Your task to perform on an android device: Go to accessibility settings Image 0: 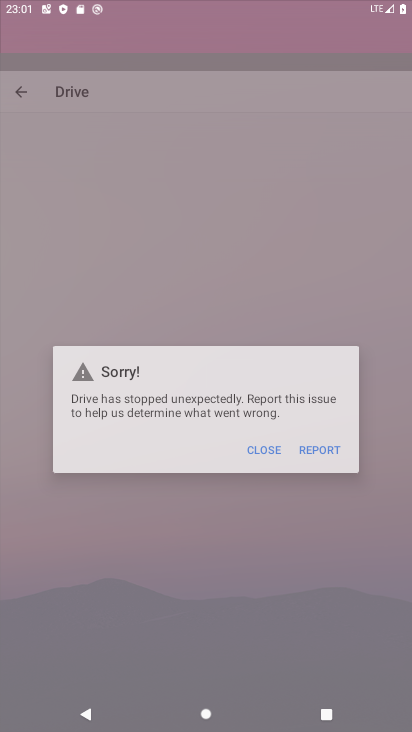
Step 0: click (225, 165)
Your task to perform on an android device: Go to accessibility settings Image 1: 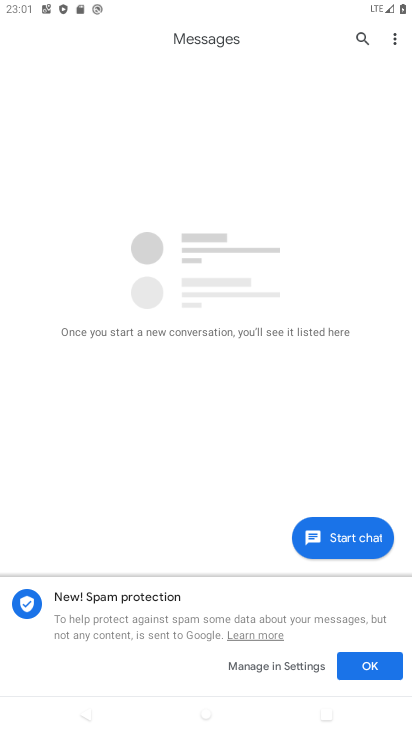
Step 1: press home button
Your task to perform on an android device: Go to accessibility settings Image 2: 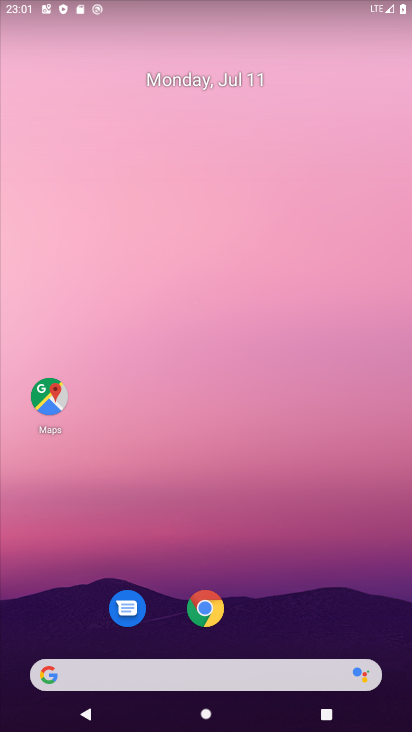
Step 2: click (48, 680)
Your task to perform on an android device: Go to accessibility settings Image 3: 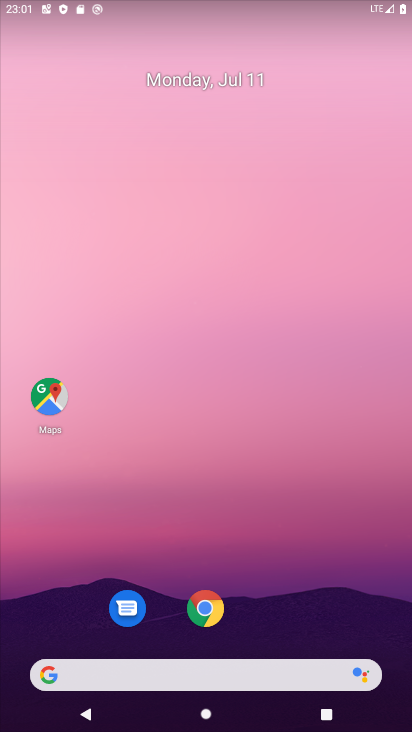
Step 3: drag from (52, 706) to (223, 309)
Your task to perform on an android device: Go to accessibility settings Image 4: 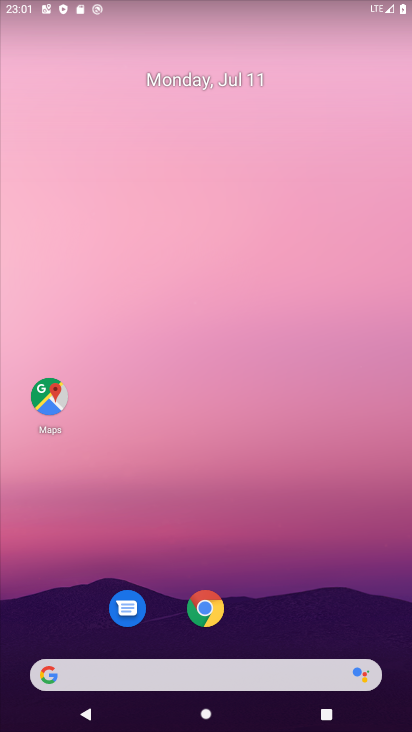
Step 4: drag from (64, 690) to (167, 264)
Your task to perform on an android device: Go to accessibility settings Image 5: 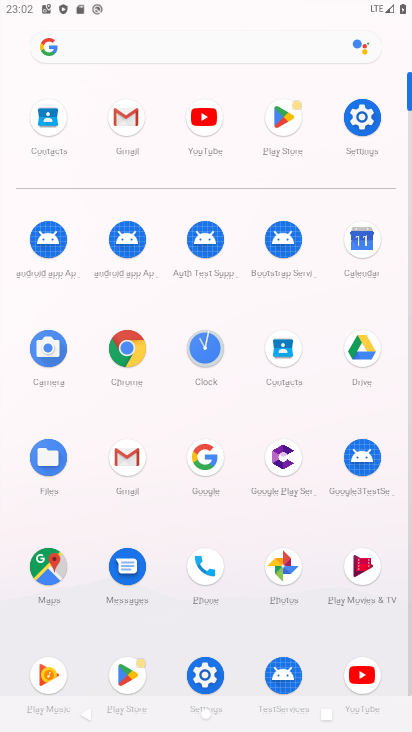
Step 5: click (198, 657)
Your task to perform on an android device: Go to accessibility settings Image 6: 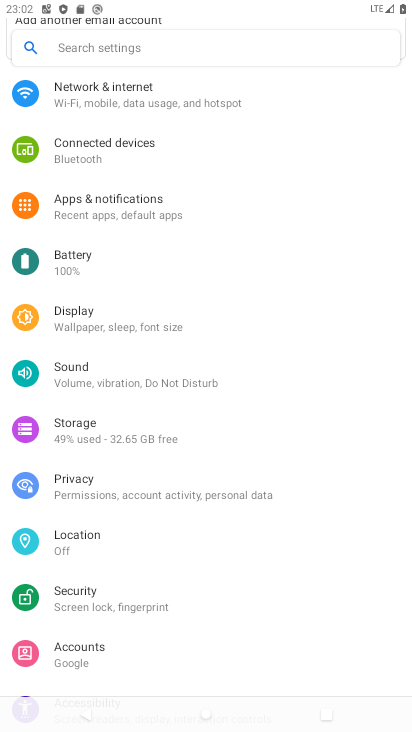
Step 6: click (82, 660)
Your task to perform on an android device: Go to accessibility settings Image 7: 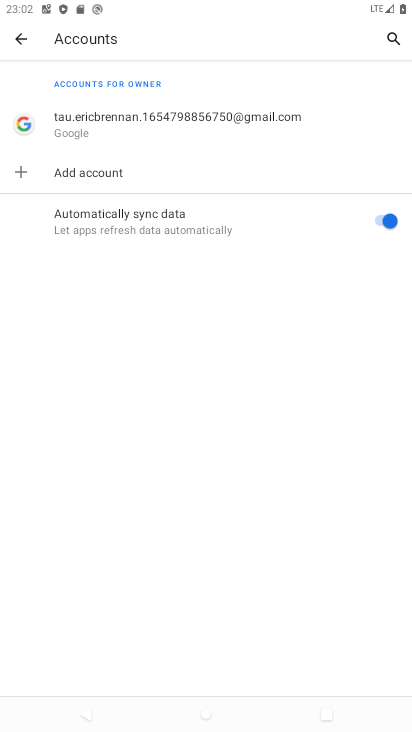
Step 7: click (17, 29)
Your task to perform on an android device: Go to accessibility settings Image 8: 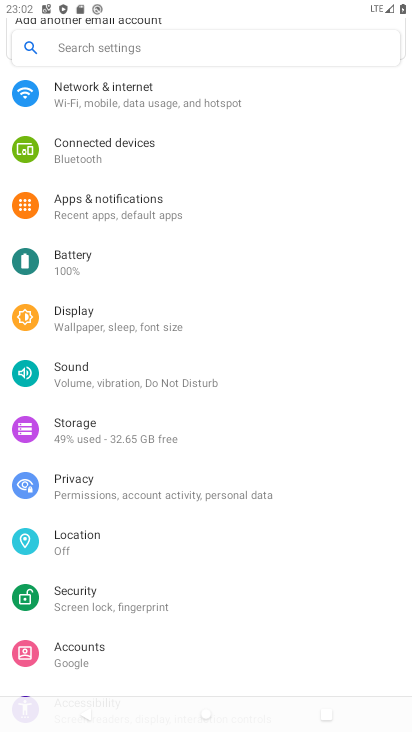
Step 8: drag from (165, 642) to (197, 267)
Your task to perform on an android device: Go to accessibility settings Image 9: 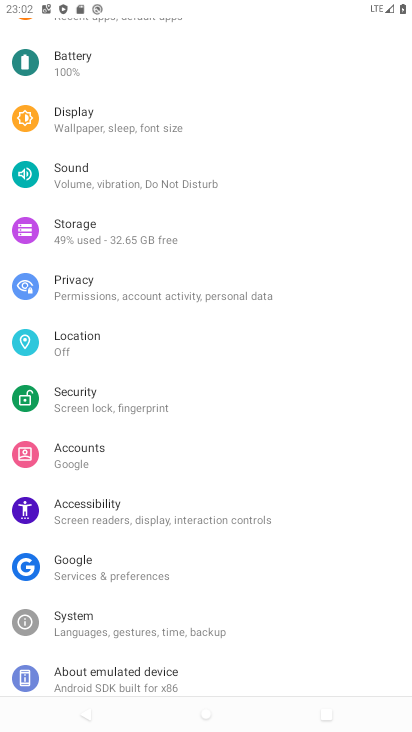
Step 9: click (95, 513)
Your task to perform on an android device: Go to accessibility settings Image 10: 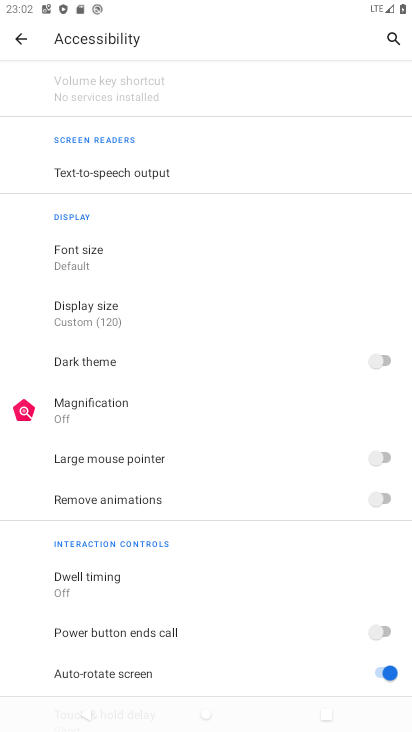
Step 10: task complete